Your task to perform on an android device: What is the news today? Image 0: 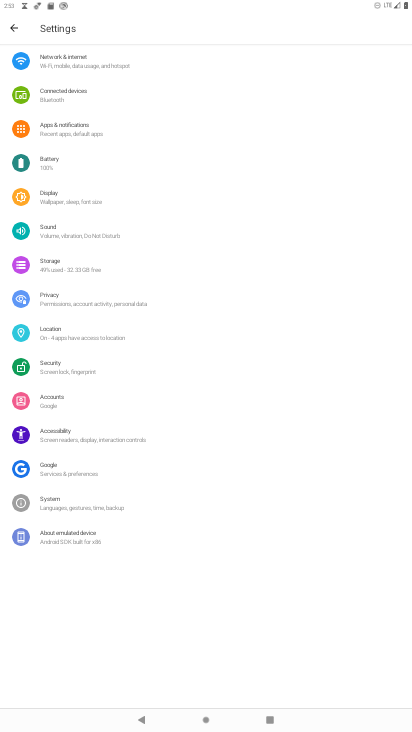
Step 0: press home button
Your task to perform on an android device: What is the news today? Image 1: 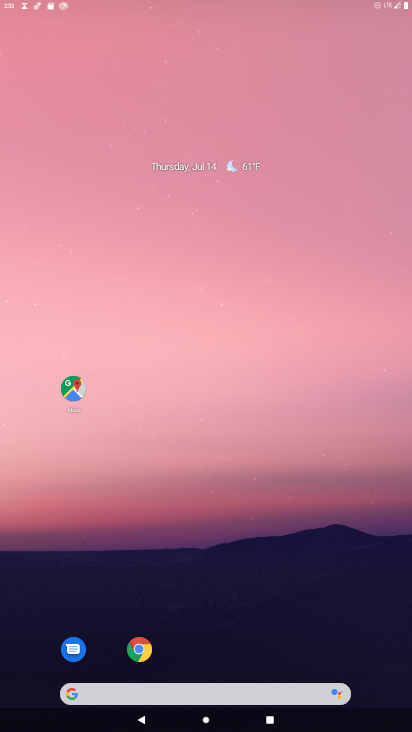
Step 1: drag from (247, 613) to (282, 2)
Your task to perform on an android device: What is the news today? Image 2: 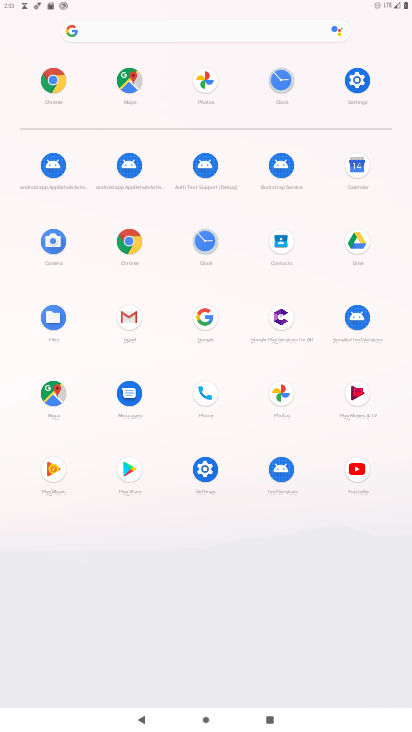
Step 2: click (128, 240)
Your task to perform on an android device: What is the news today? Image 3: 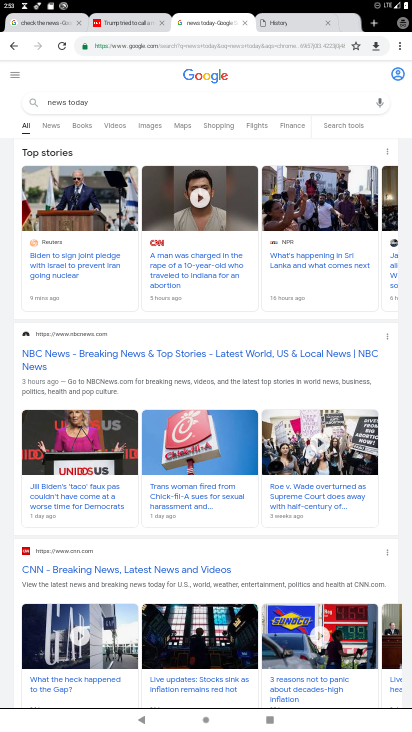
Step 3: click (265, 45)
Your task to perform on an android device: What is the news today? Image 4: 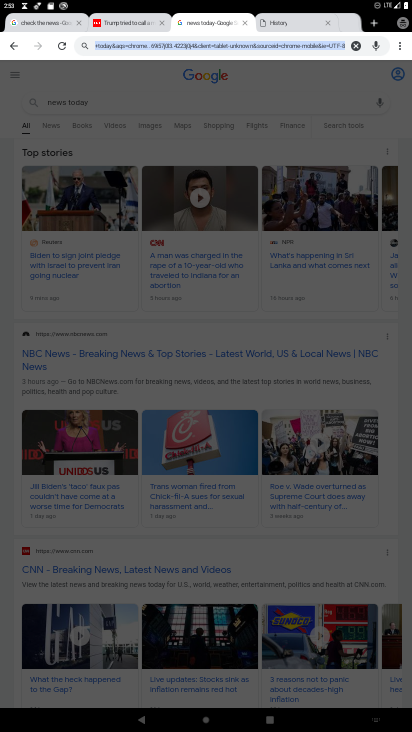
Step 4: type "news today"
Your task to perform on an android device: What is the news today? Image 5: 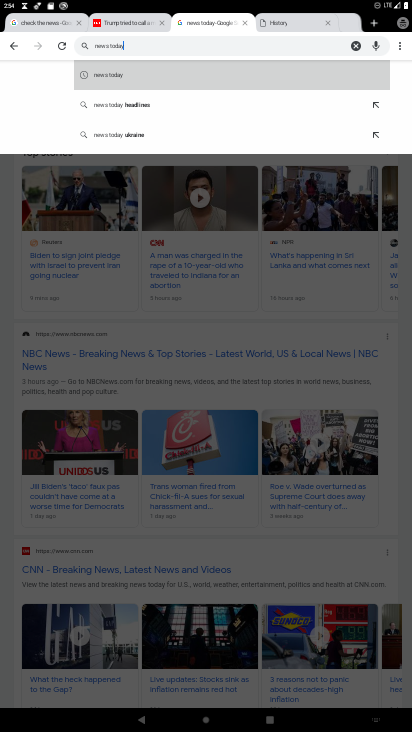
Step 5: click (176, 73)
Your task to perform on an android device: What is the news today? Image 6: 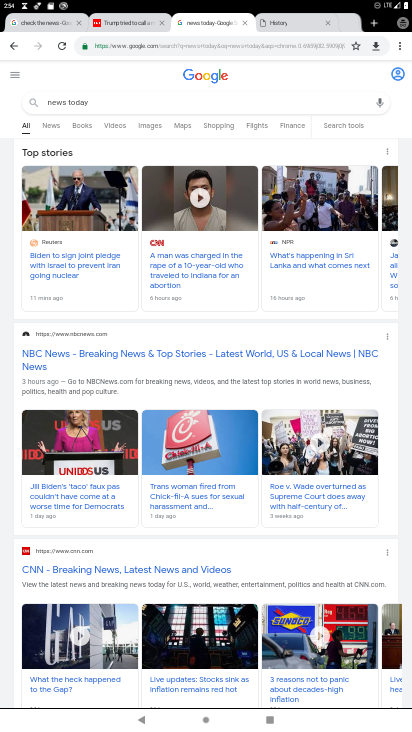
Step 6: task complete